Your task to perform on an android device: create a new album in the google photos Image 0: 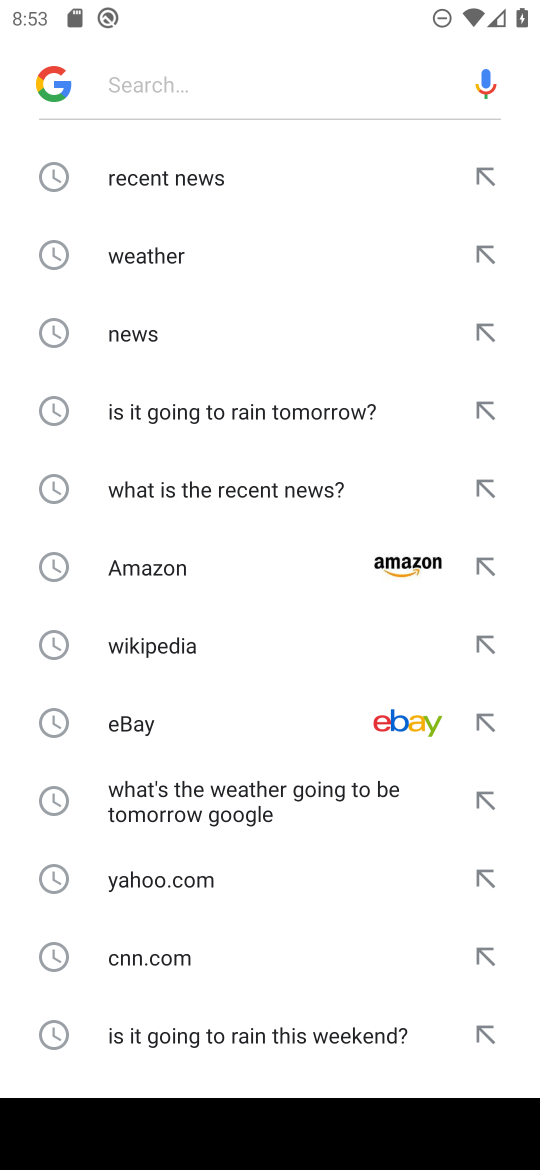
Step 0: press home button
Your task to perform on an android device: create a new album in the google photos Image 1: 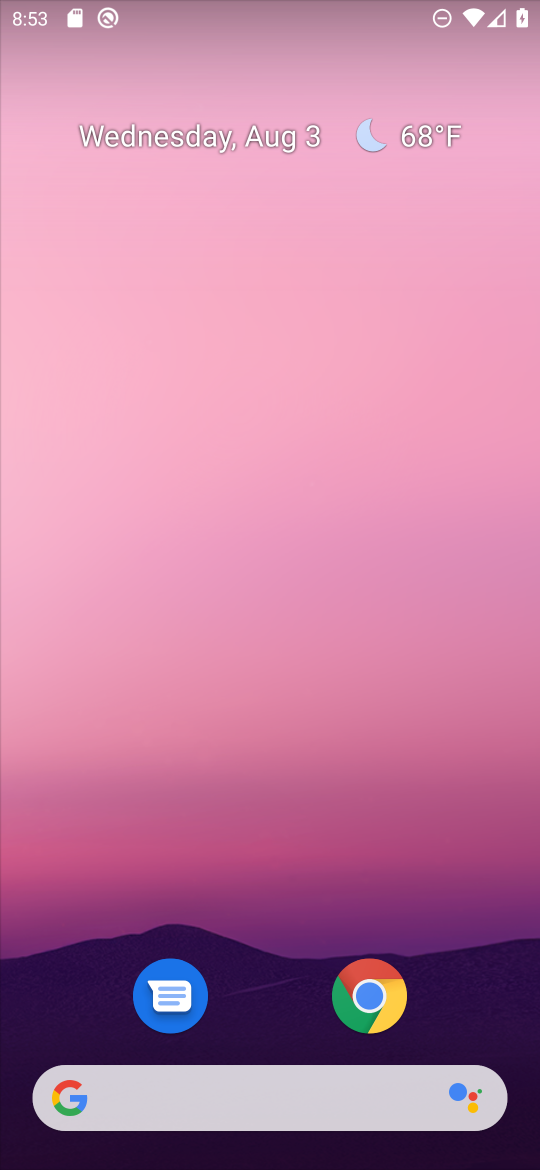
Step 1: drag from (290, 907) to (361, 36)
Your task to perform on an android device: create a new album in the google photos Image 2: 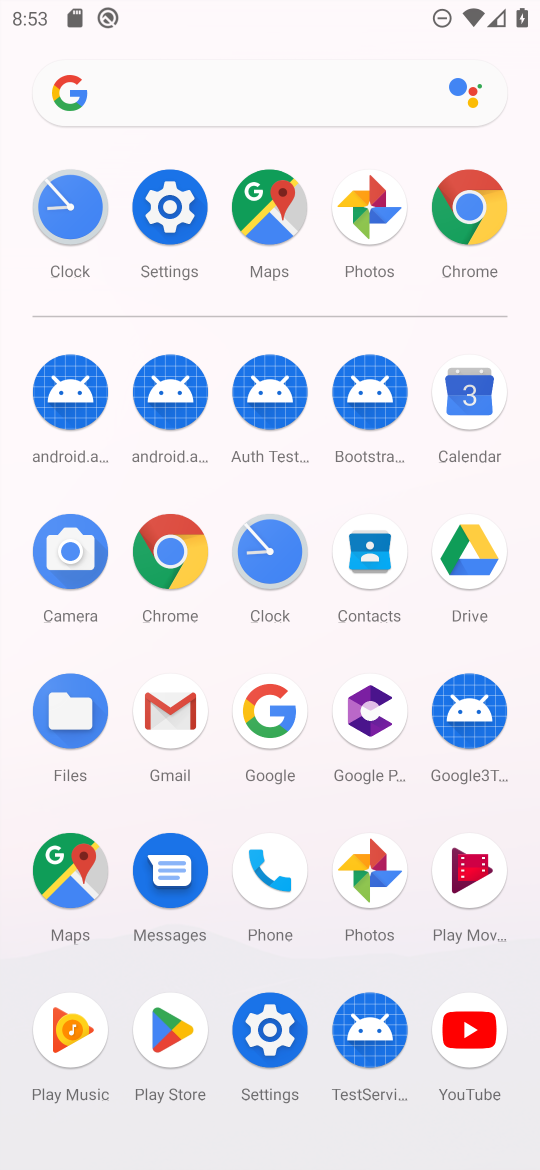
Step 2: click (372, 208)
Your task to perform on an android device: create a new album in the google photos Image 3: 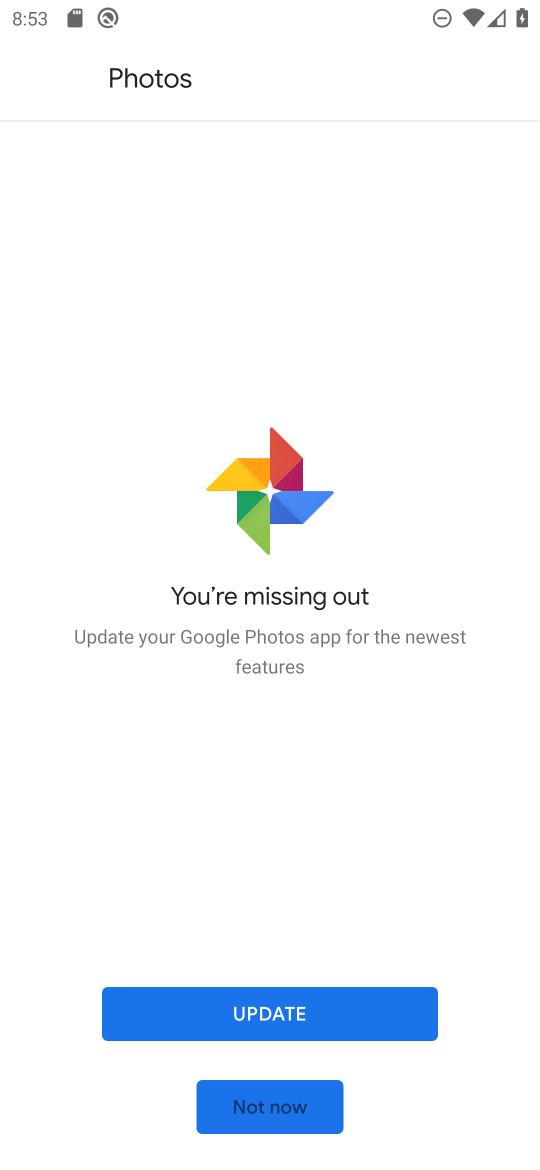
Step 3: click (314, 1115)
Your task to perform on an android device: create a new album in the google photos Image 4: 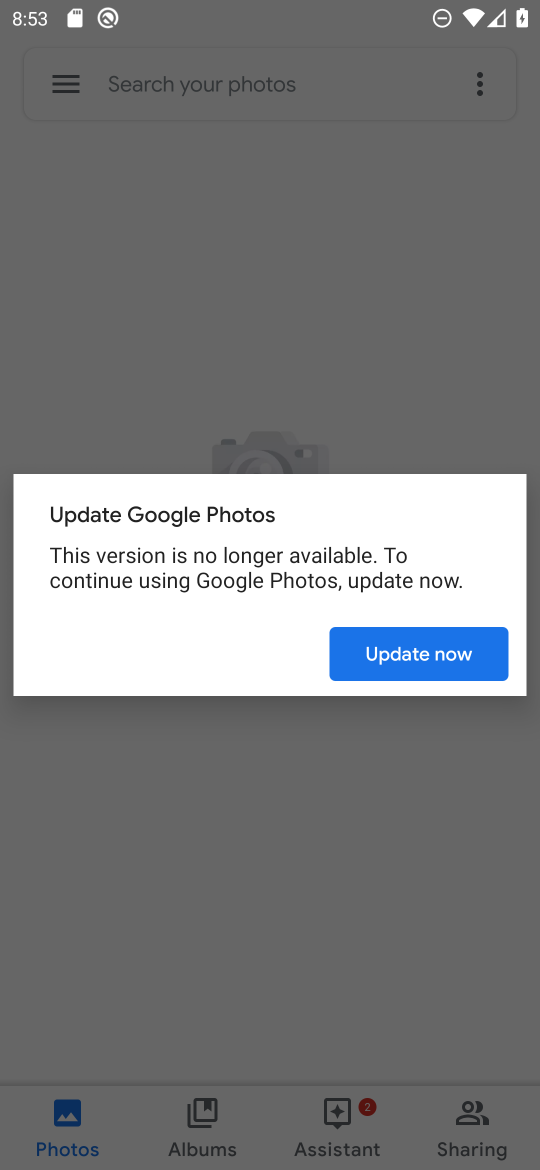
Step 4: click (456, 645)
Your task to perform on an android device: create a new album in the google photos Image 5: 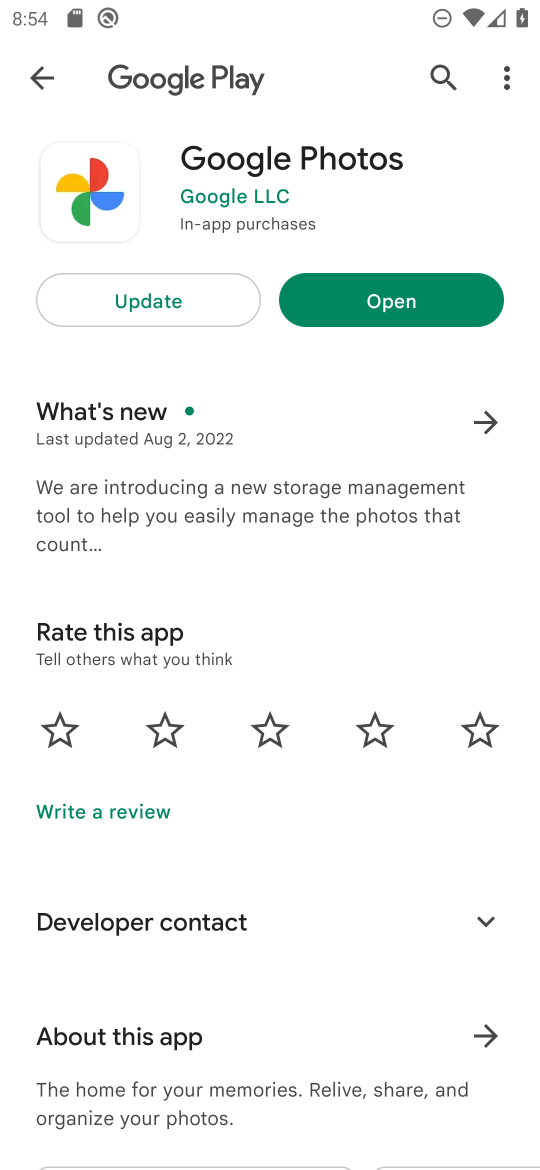
Step 5: click (411, 291)
Your task to perform on an android device: create a new album in the google photos Image 6: 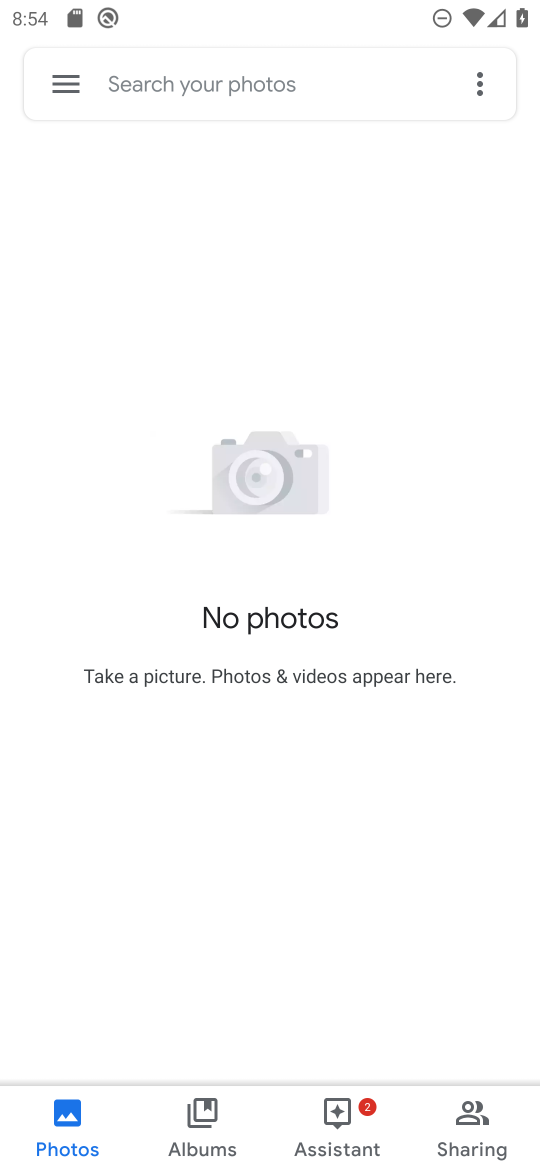
Step 6: click (197, 1112)
Your task to perform on an android device: create a new album in the google photos Image 7: 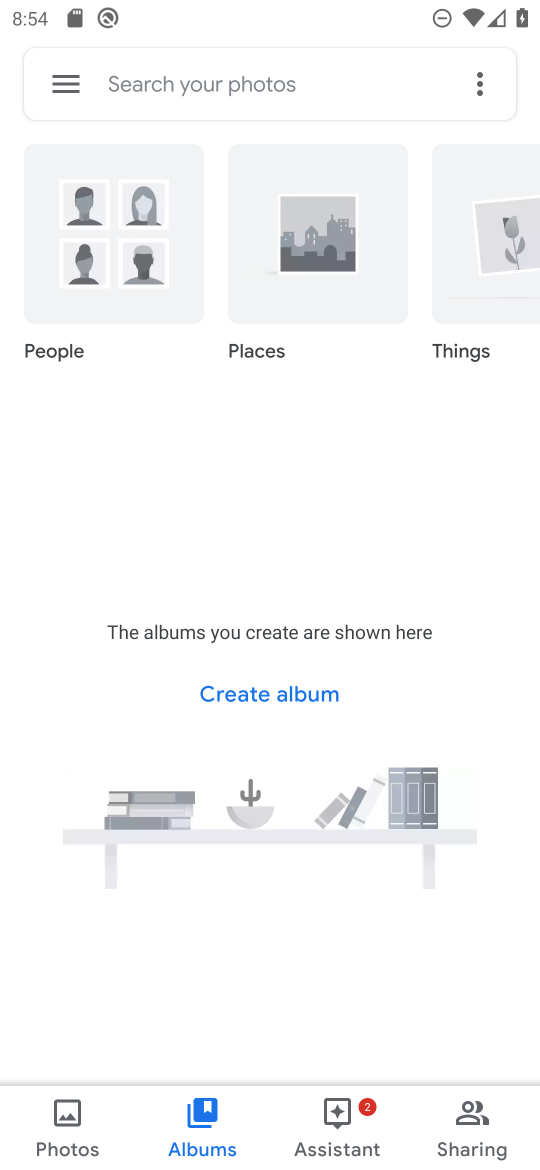
Step 7: click (296, 689)
Your task to perform on an android device: create a new album in the google photos Image 8: 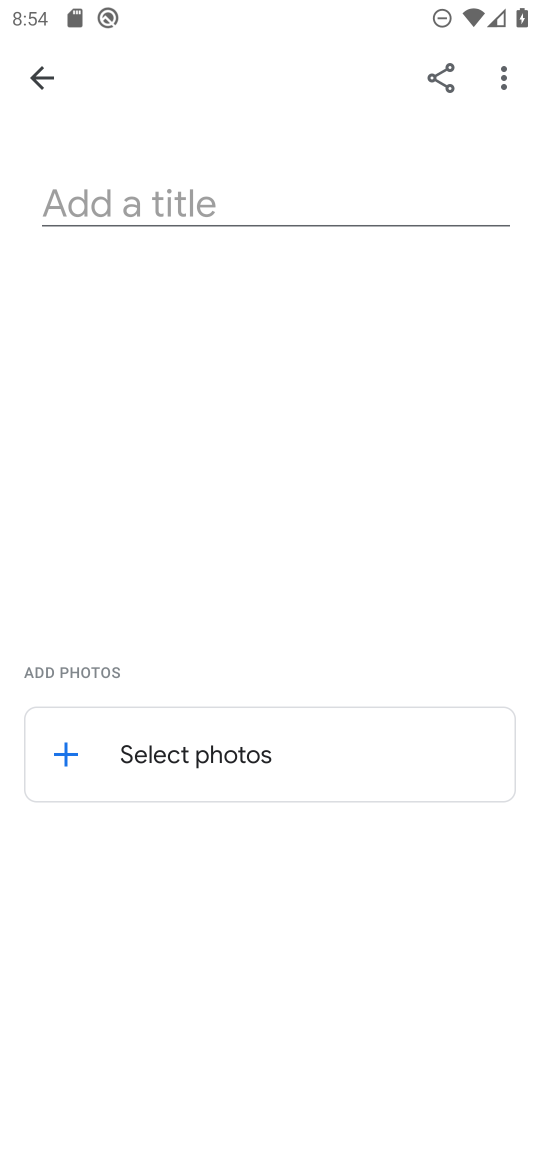
Step 8: click (326, 200)
Your task to perform on an android device: create a new album in the google photos Image 9: 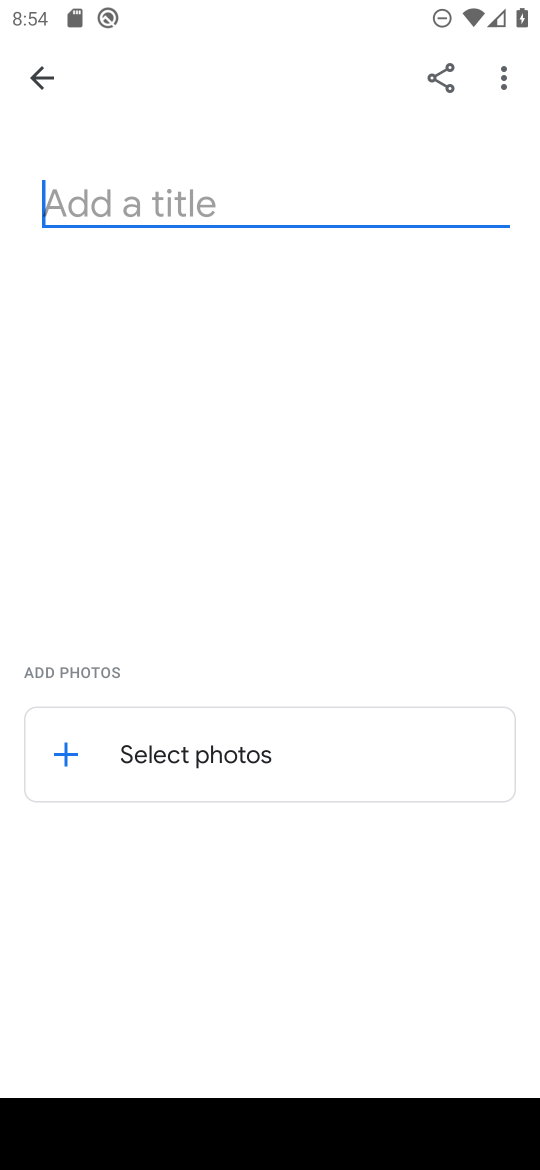
Step 9: type "Om"
Your task to perform on an android device: create a new album in the google photos Image 10: 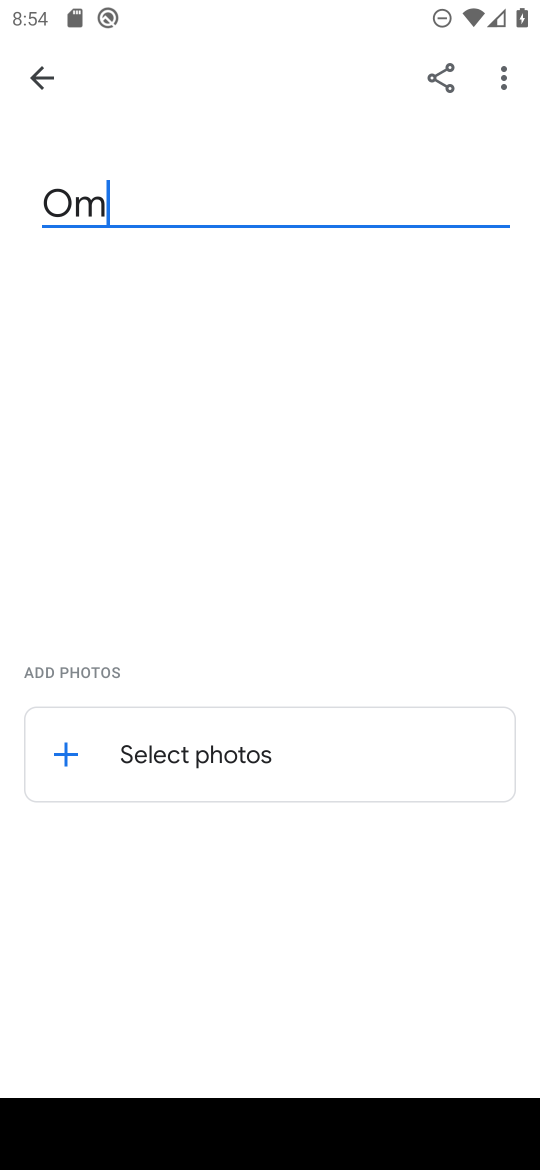
Step 10: click (61, 750)
Your task to perform on an android device: create a new album in the google photos Image 11: 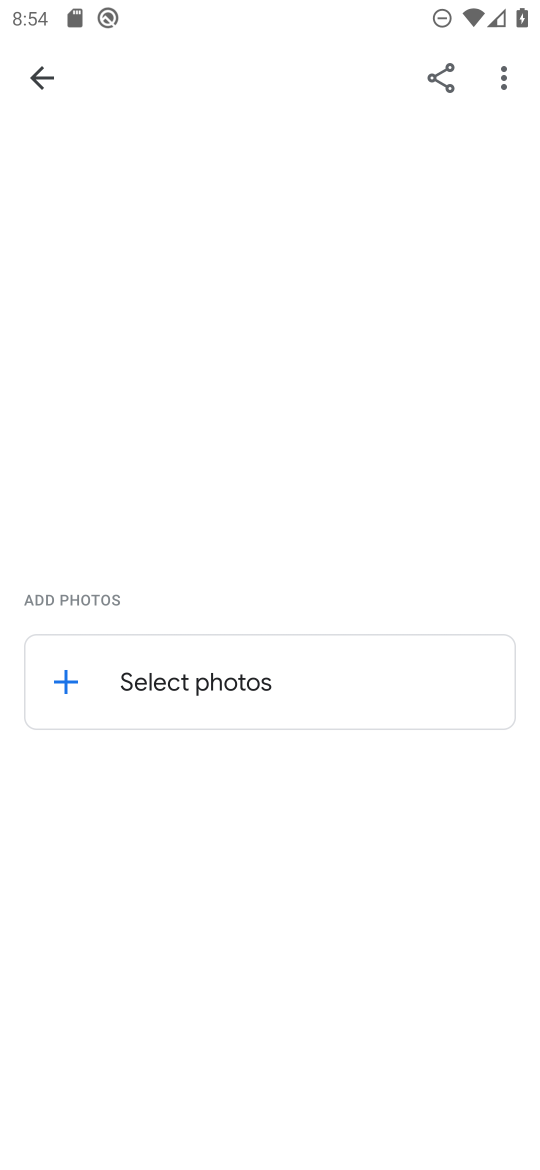
Step 11: task complete